Your task to perform on an android device: Open Google Maps Image 0: 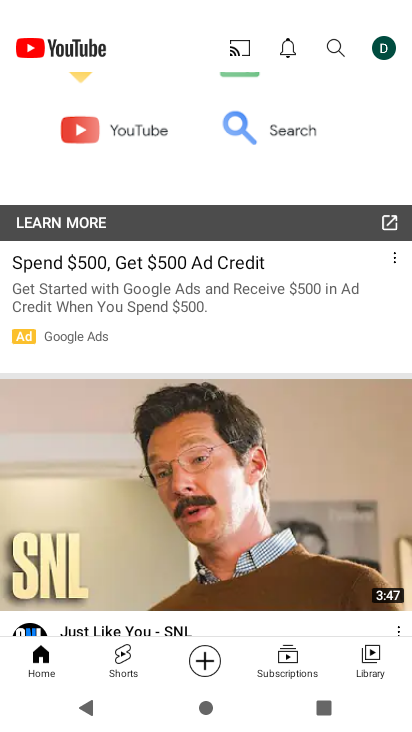
Step 0: press home button
Your task to perform on an android device: Open Google Maps Image 1: 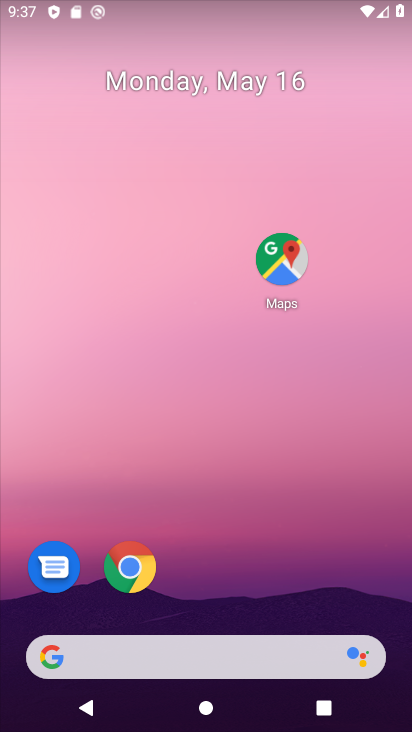
Step 1: click (292, 260)
Your task to perform on an android device: Open Google Maps Image 2: 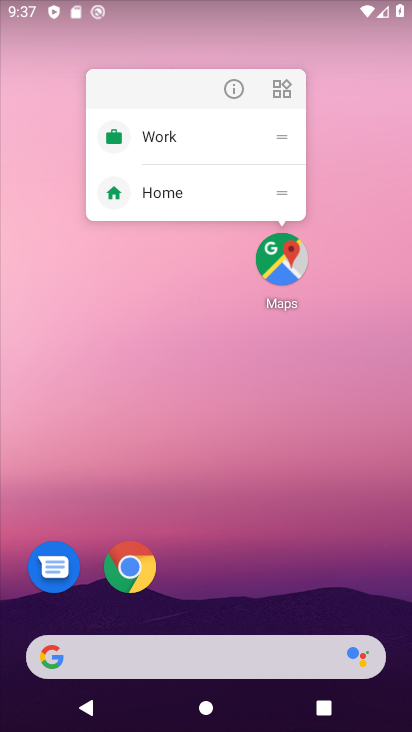
Step 2: click (294, 266)
Your task to perform on an android device: Open Google Maps Image 3: 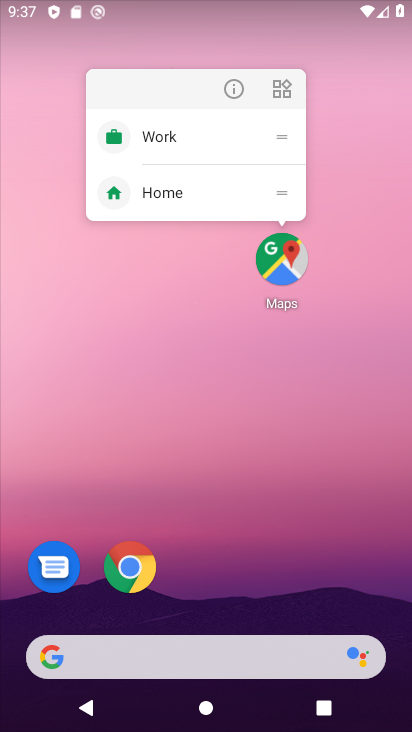
Step 3: click (283, 261)
Your task to perform on an android device: Open Google Maps Image 4: 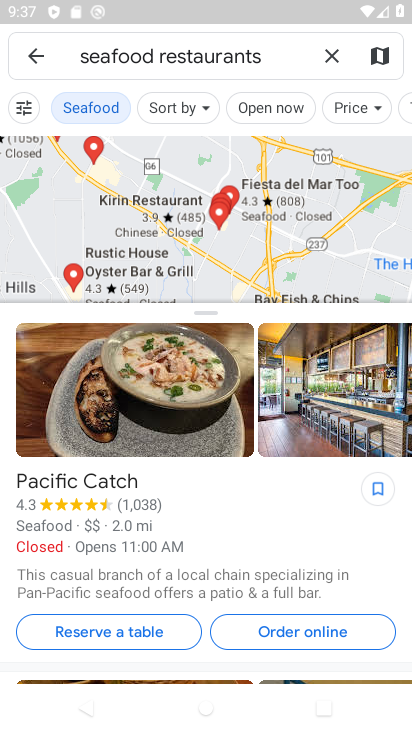
Step 4: task complete